Your task to perform on an android device: toggle wifi Image 0: 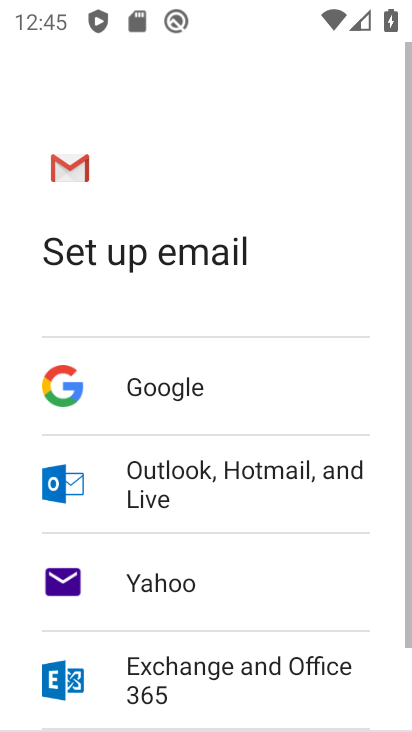
Step 0: press home button
Your task to perform on an android device: toggle wifi Image 1: 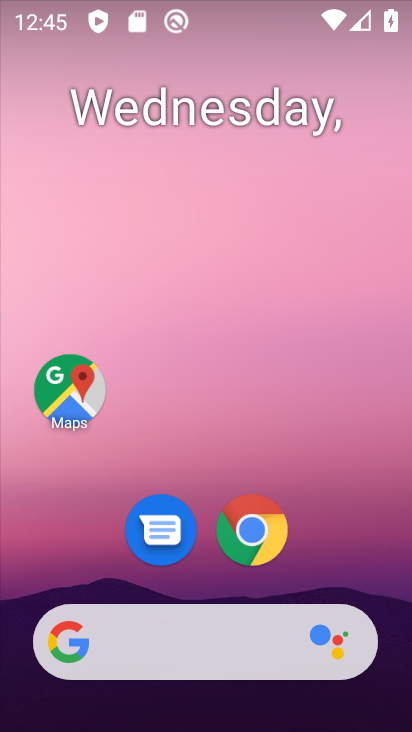
Step 1: drag from (358, 412) to (353, 147)
Your task to perform on an android device: toggle wifi Image 2: 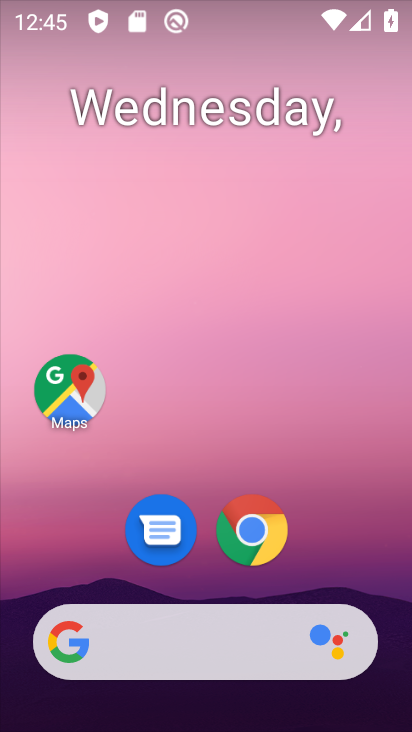
Step 2: drag from (362, 578) to (334, 165)
Your task to perform on an android device: toggle wifi Image 3: 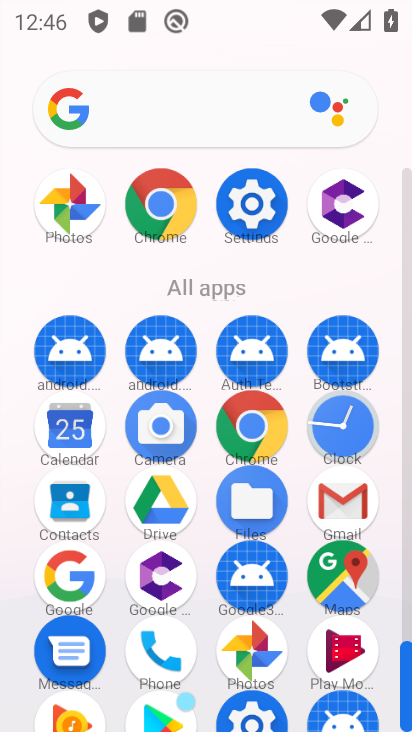
Step 3: click (268, 231)
Your task to perform on an android device: toggle wifi Image 4: 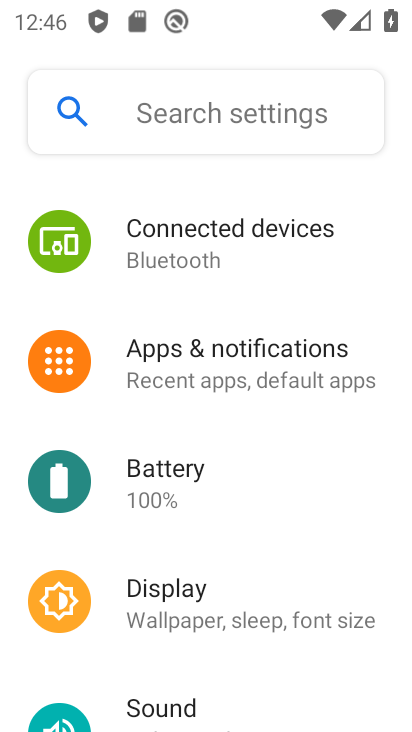
Step 4: drag from (269, 236) to (272, 517)
Your task to perform on an android device: toggle wifi Image 5: 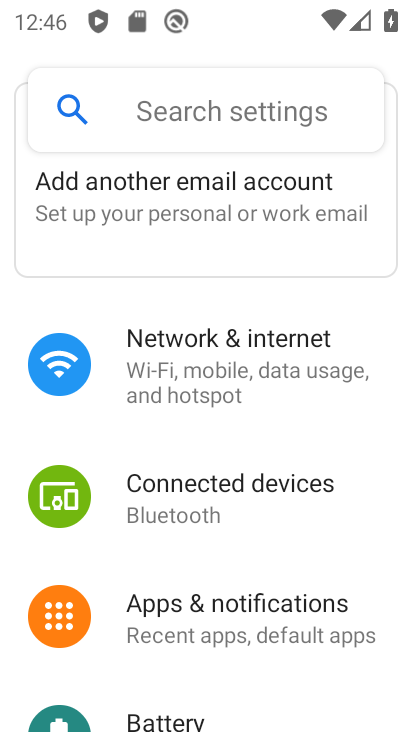
Step 5: click (174, 355)
Your task to perform on an android device: toggle wifi Image 6: 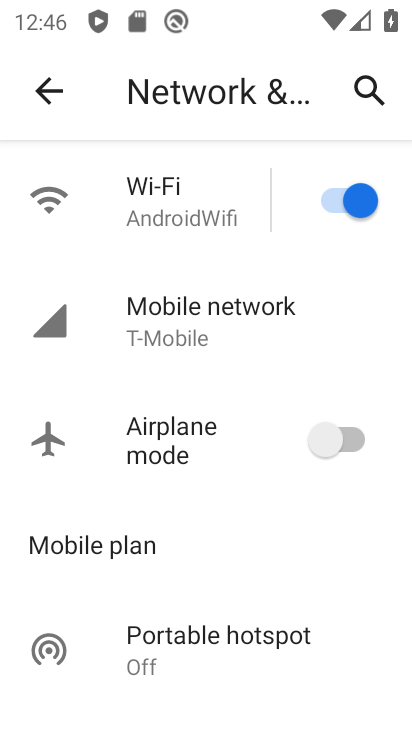
Step 6: click (335, 197)
Your task to perform on an android device: toggle wifi Image 7: 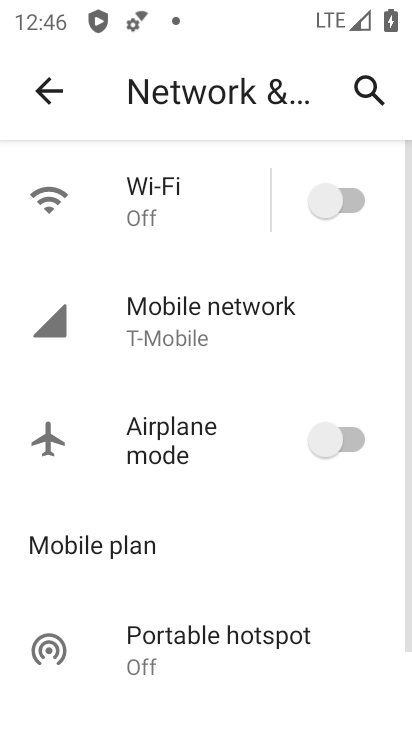
Step 7: task complete